Your task to perform on an android device: change keyboard looks Image 0: 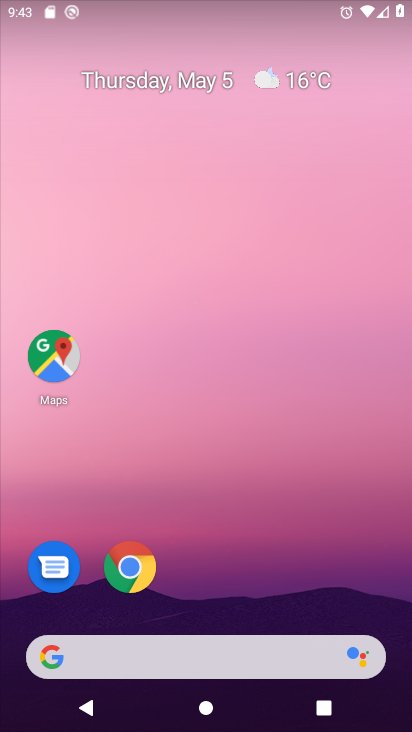
Step 0: drag from (332, 562) to (336, 12)
Your task to perform on an android device: change keyboard looks Image 1: 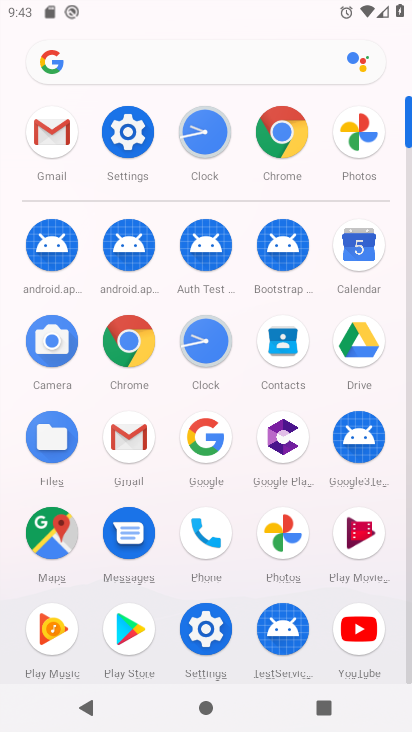
Step 1: click (205, 619)
Your task to perform on an android device: change keyboard looks Image 2: 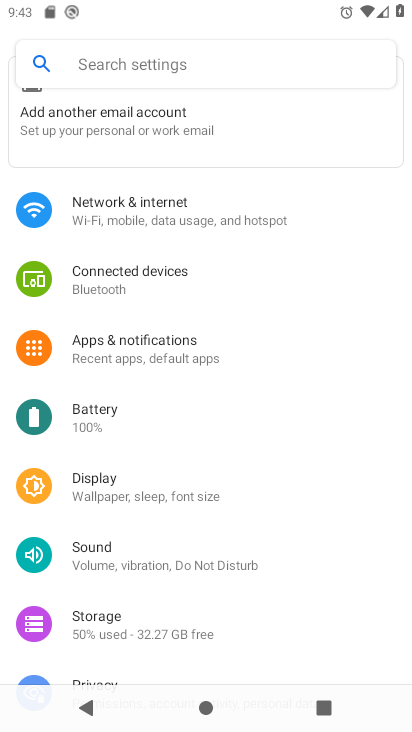
Step 2: drag from (205, 576) to (208, 167)
Your task to perform on an android device: change keyboard looks Image 3: 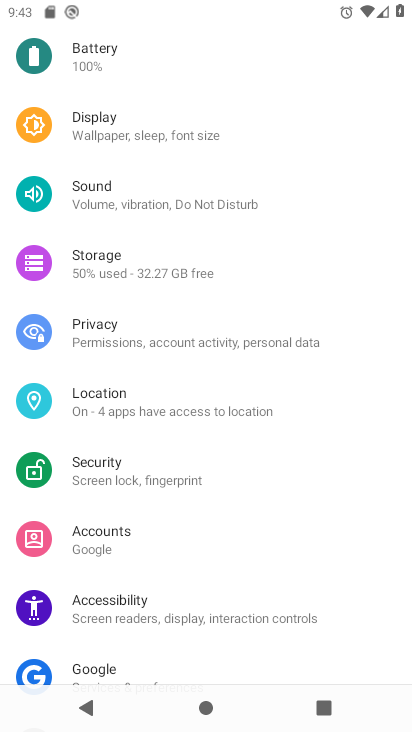
Step 3: drag from (208, 491) to (229, 140)
Your task to perform on an android device: change keyboard looks Image 4: 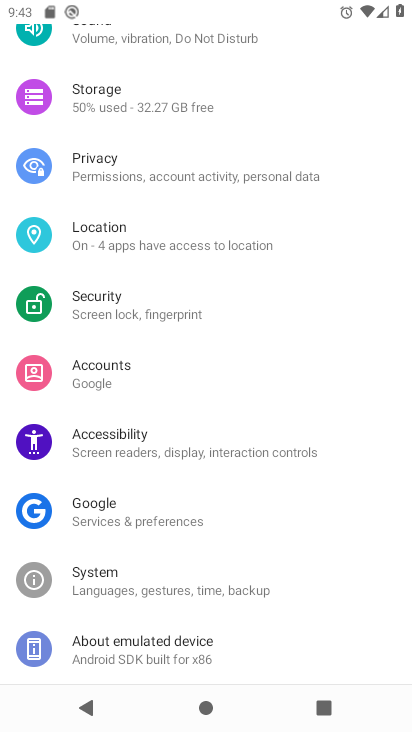
Step 4: click (190, 580)
Your task to perform on an android device: change keyboard looks Image 5: 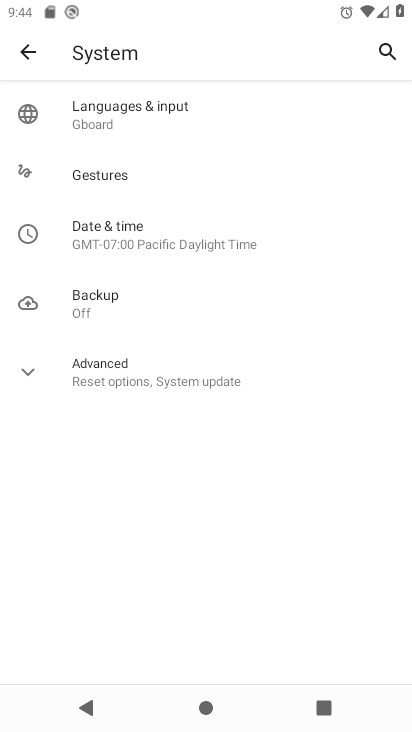
Step 5: click (185, 126)
Your task to perform on an android device: change keyboard looks Image 6: 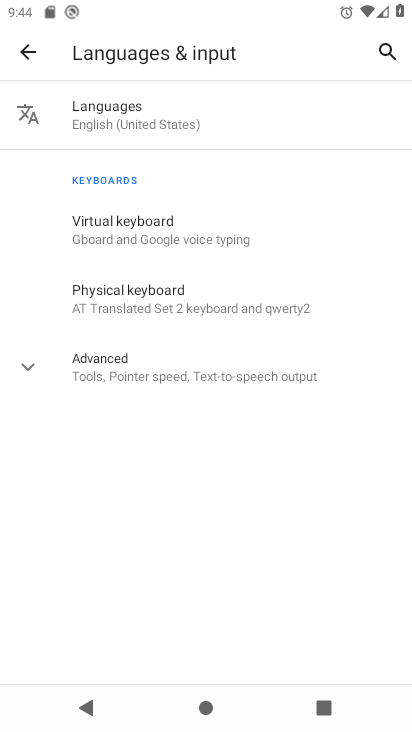
Step 6: click (145, 229)
Your task to perform on an android device: change keyboard looks Image 7: 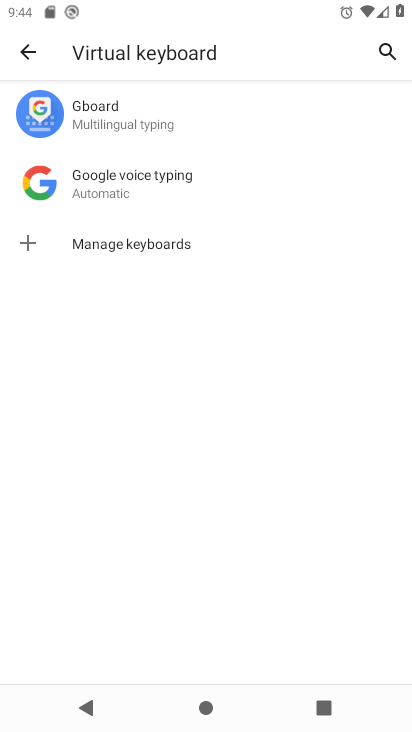
Step 7: click (128, 111)
Your task to perform on an android device: change keyboard looks Image 8: 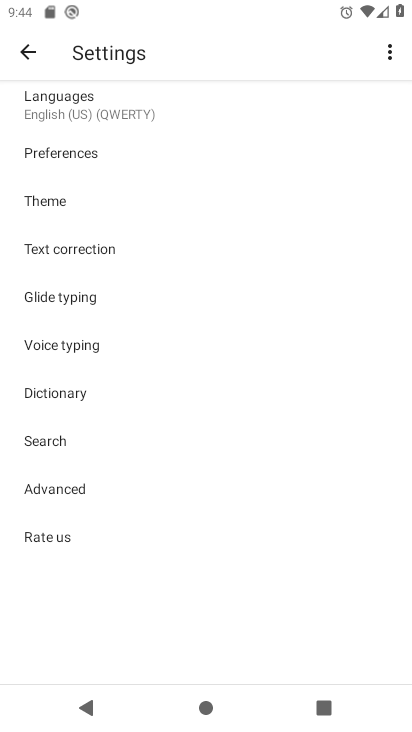
Step 8: click (49, 202)
Your task to perform on an android device: change keyboard looks Image 9: 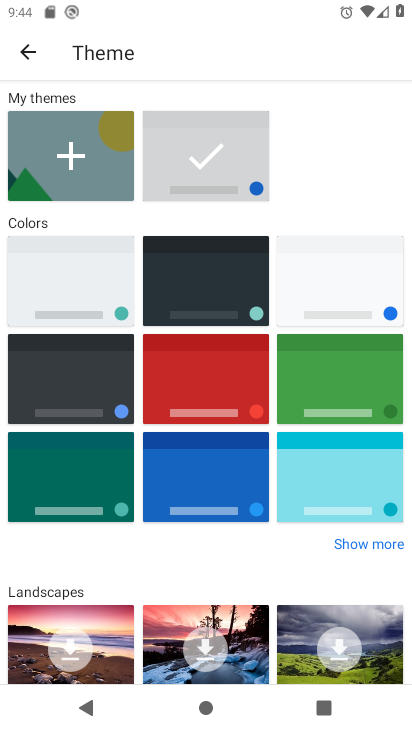
Step 9: click (196, 279)
Your task to perform on an android device: change keyboard looks Image 10: 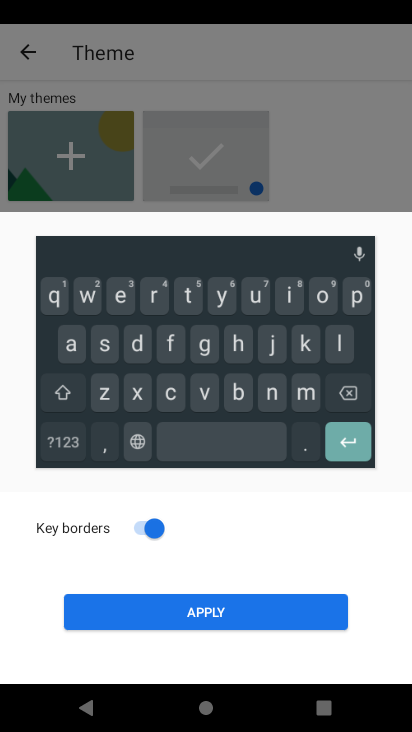
Step 10: click (165, 616)
Your task to perform on an android device: change keyboard looks Image 11: 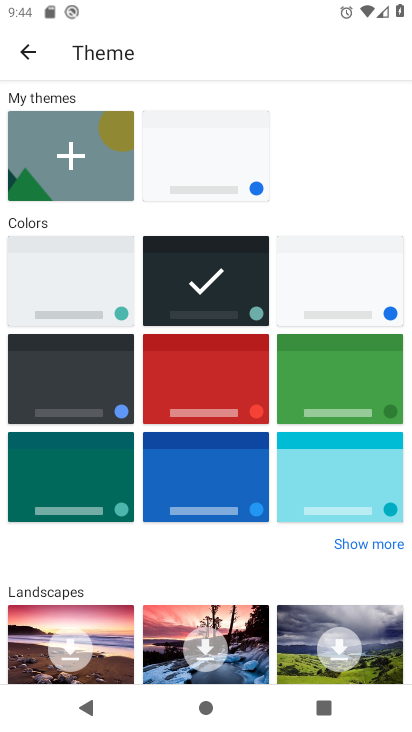
Step 11: task complete